Your task to perform on an android device: move an email to a new category in the gmail app Image 0: 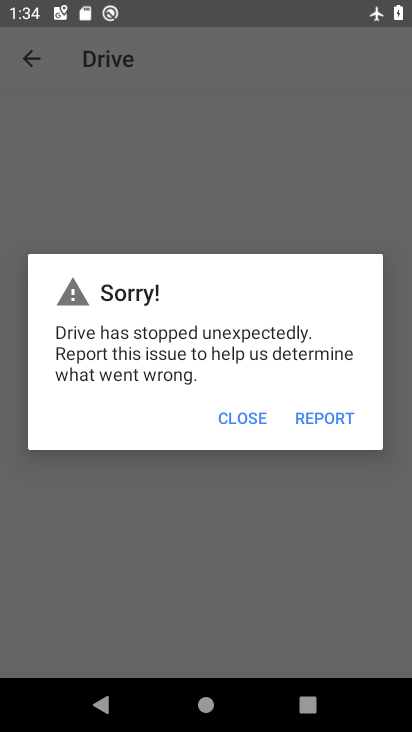
Step 0: press home button
Your task to perform on an android device: move an email to a new category in the gmail app Image 1: 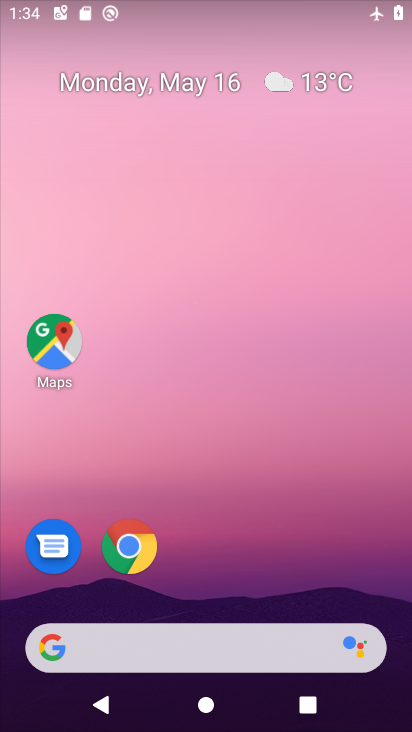
Step 1: drag from (231, 718) to (231, 182)
Your task to perform on an android device: move an email to a new category in the gmail app Image 2: 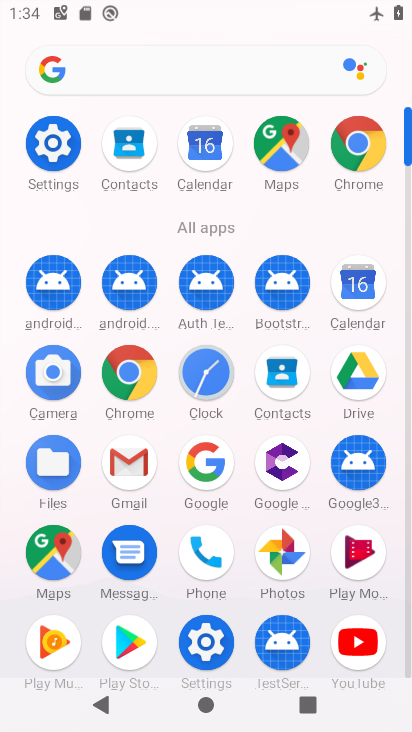
Step 2: click (131, 466)
Your task to perform on an android device: move an email to a new category in the gmail app Image 3: 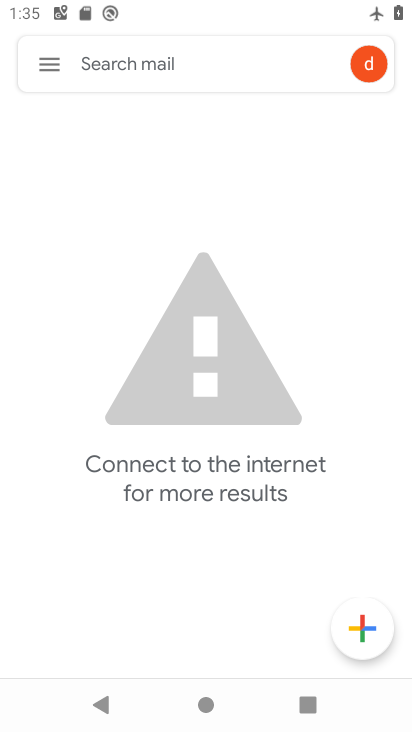
Step 3: task complete